Your task to perform on an android device: open sync settings in chrome Image 0: 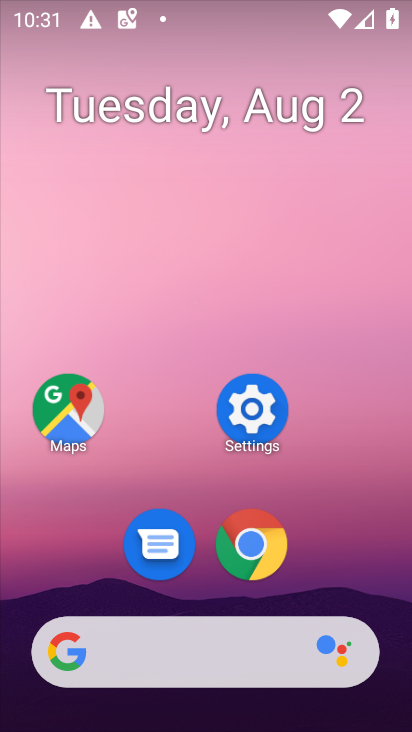
Step 0: click (250, 551)
Your task to perform on an android device: open sync settings in chrome Image 1: 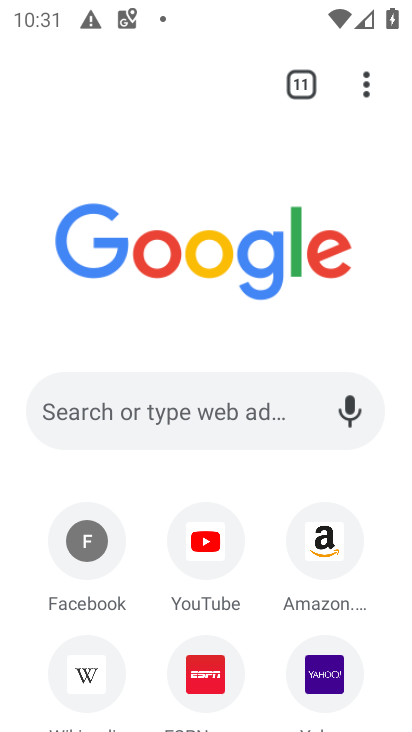
Step 1: drag from (362, 77) to (218, 595)
Your task to perform on an android device: open sync settings in chrome Image 2: 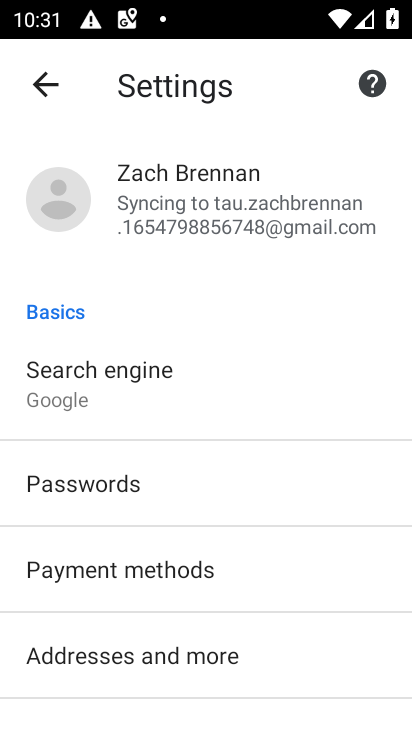
Step 2: click (232, 195)
Your task to perform on an android device: open sync settings in chrome Image 3: 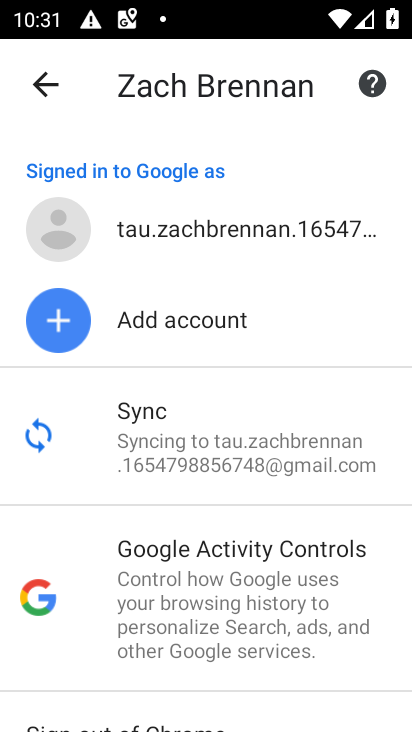
Step 3: click (198, 414)
Your task to perform on an android device: open sync settings in chrome Image 4: 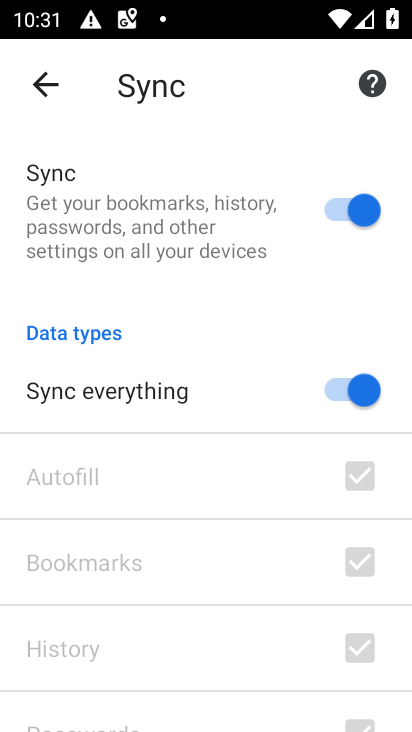
Step 4: task complete